Your task to perform on an android device: turn on improve location accuracy Image 0: 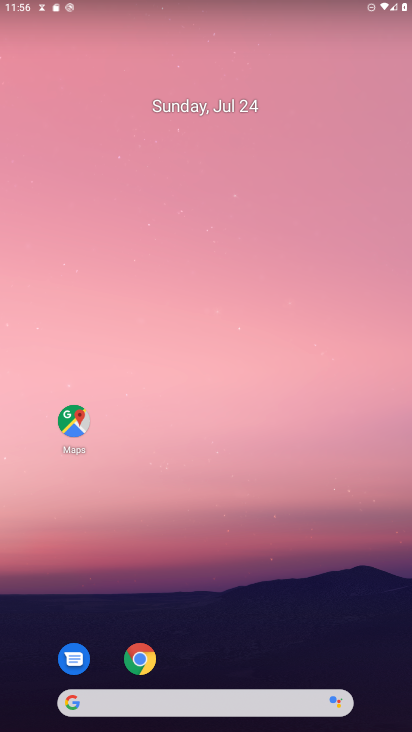
Step 0: drag from (303, 571) to (299, 225)
Your task to perform on an android device: turn on improve location accuracy Image 1: 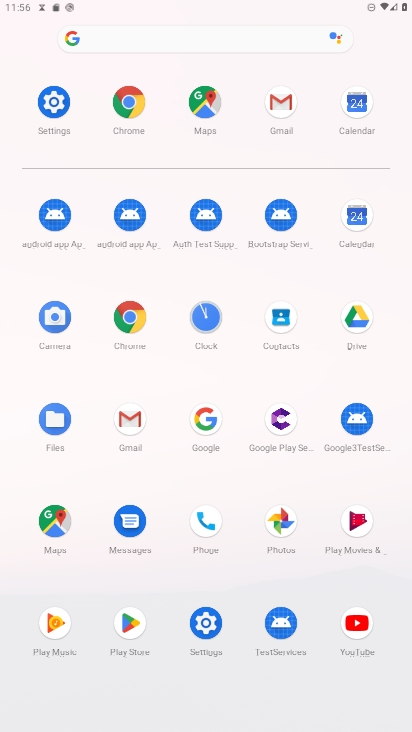
Step 1: click (53, 105)
Your task to perform on an android device: turn on improve location accuracy Image 2: 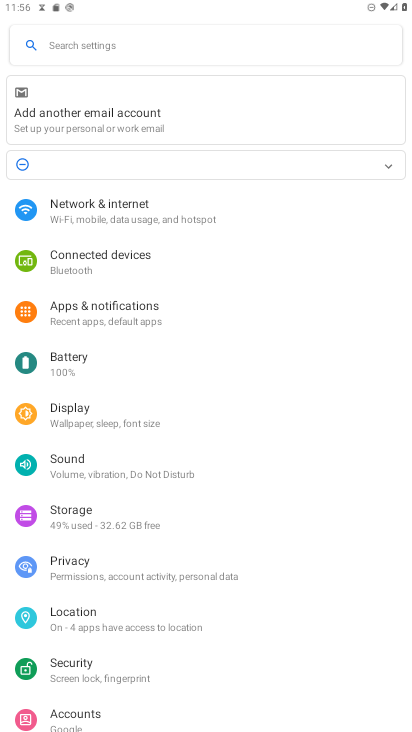
Step 2: click (125, 622)
Your task to perform on an android device: turn on improve location accuracy Image 3: 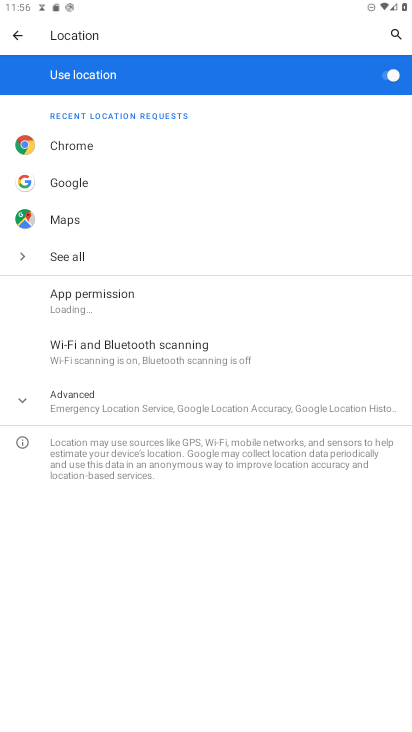
Step 3: click (118, 389)
Your task to perform on an android device: turn on improve location accuracy Image 4: 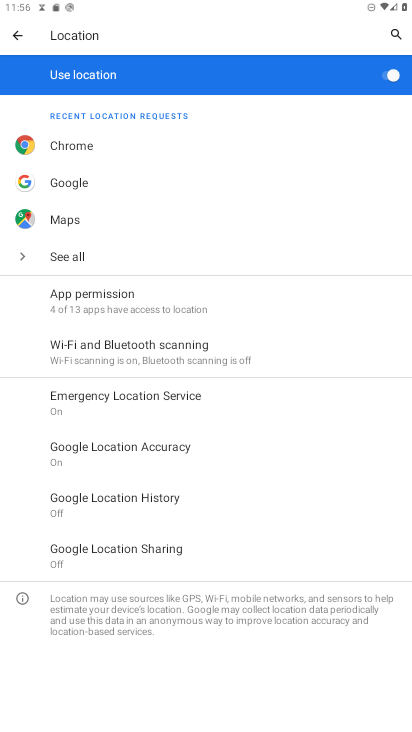
Step 4: click (215, 453)
Your task to perform on an android device: turn on improve location accuracy Image 5: 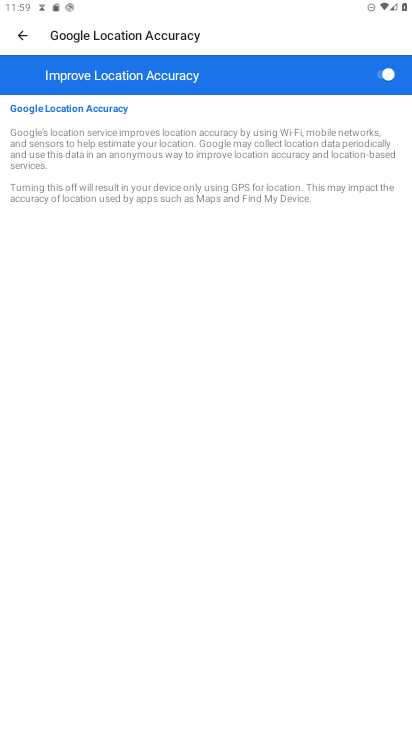
Step 5: task complete